Your task to perform on an android device: open device folders in google photos Image 0: 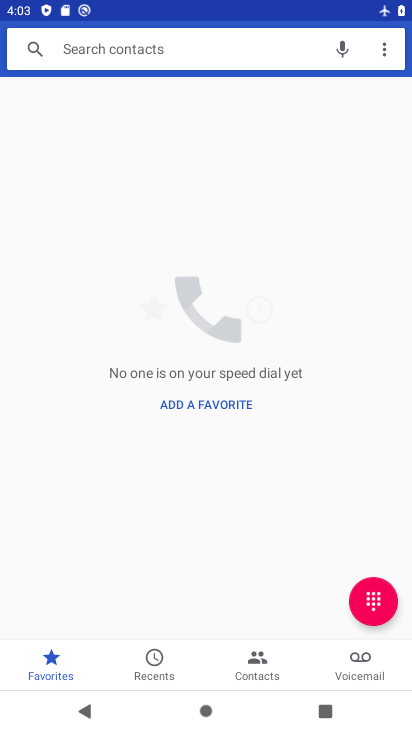
Step 0: press home button
Your task to perform on an android device: open device folders in google photos Image 1: 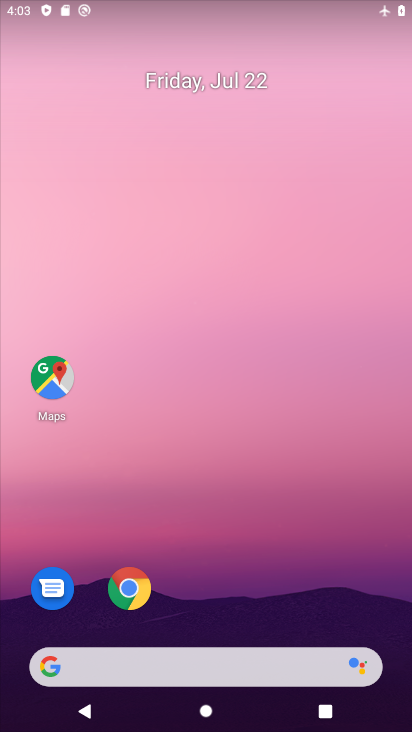
Step 1: click (230, 157)
Your task to perform on an android device: open device folders in google photos Image 2: 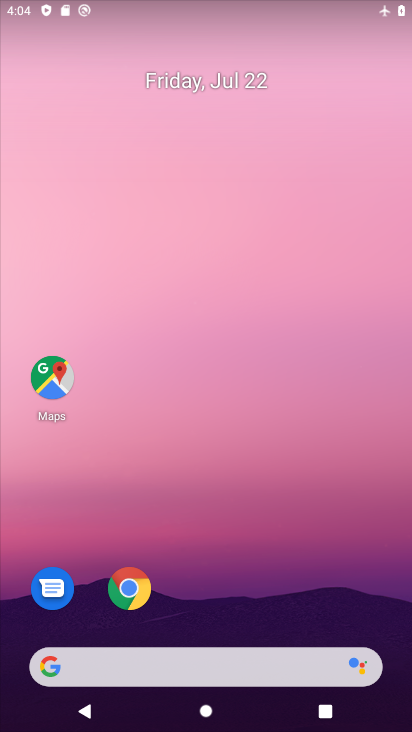
Step 2: drag from (192, 462) to (190, 62)
Your task to perform on an android device: open device folders in google photos Image 3: 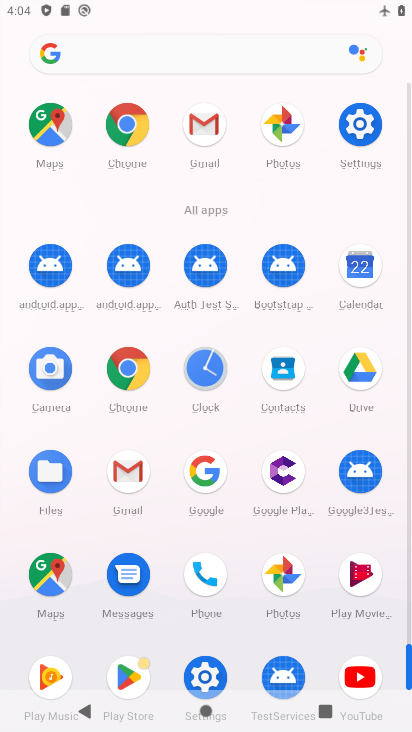
Step 3: click (288, 574)
Your task to perform on an android device: open device folders in google photos Image 4: 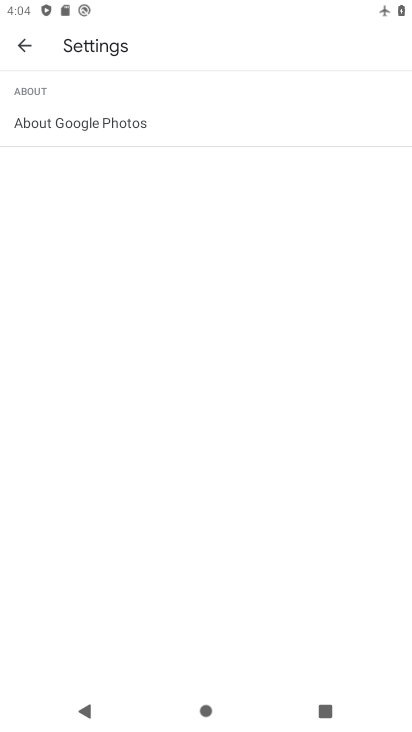
Step 4: click (27, 43)
Your task to perform on an android device: open device folders in google photos Image 5: 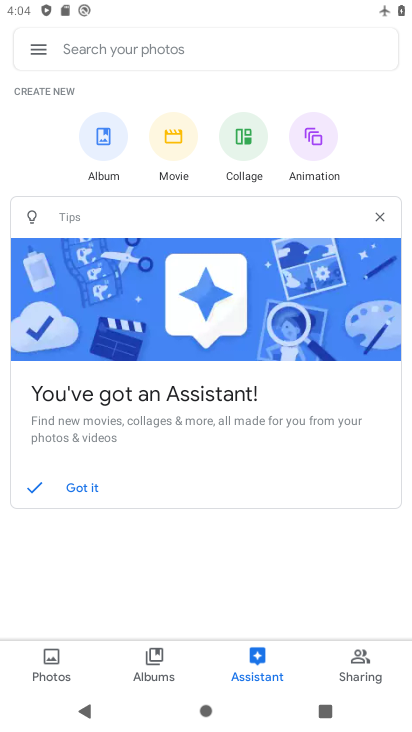
Step 5: click (34, 47)
Your task to perform on an android device: open device folders in google photos Image 6: 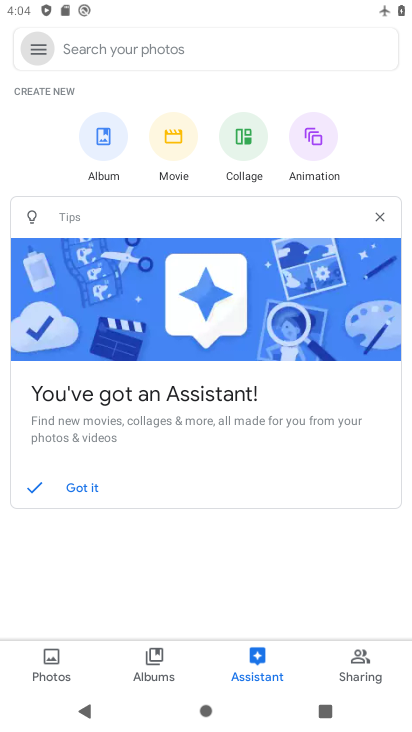
Step 6: click (31, 56)
Your task to perform on an android device: open device folders in google photos Image 7: 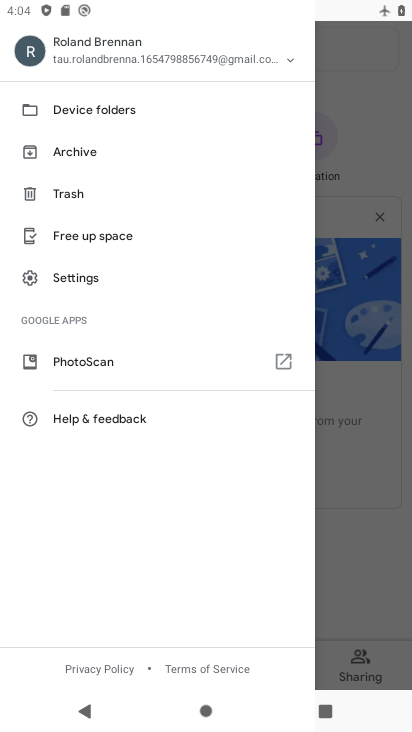
Step 7: click (90, 102)
Your task to perform on an android device: open device folders in google photos Image 8: 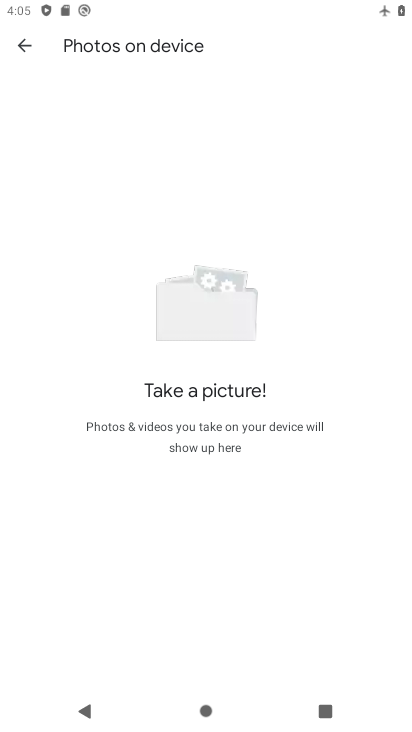
Step 8: task complete